Your task to perform on an android device: Go to Google maps Image 0: 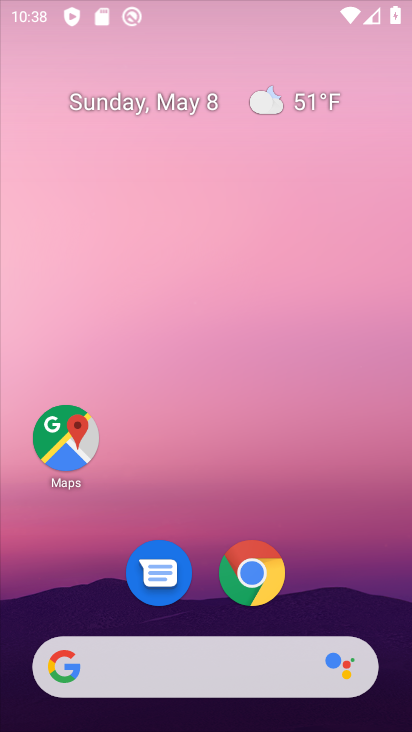
Step 0: drag from (192, 645) to (206, 263)
Your task to perform on an android device: Go to Google maps Image 1: 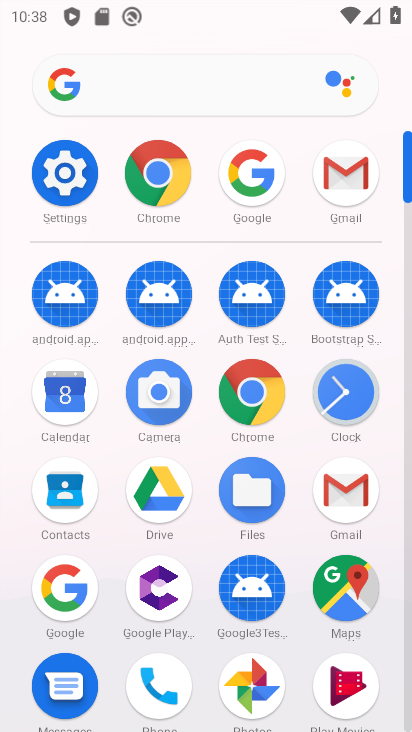
Step 1: click (351, 584)
Your task to perform on an android device: Go to Google maps Image 2: 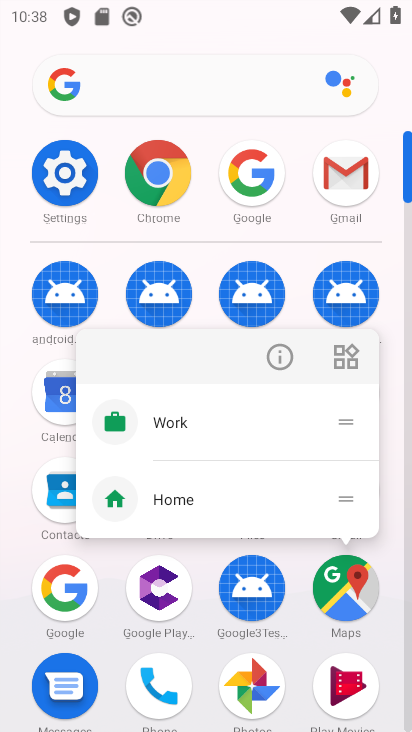
Step 2: click (348, 587)
Your task to perform on an android device: Go to Google maps Image 3: 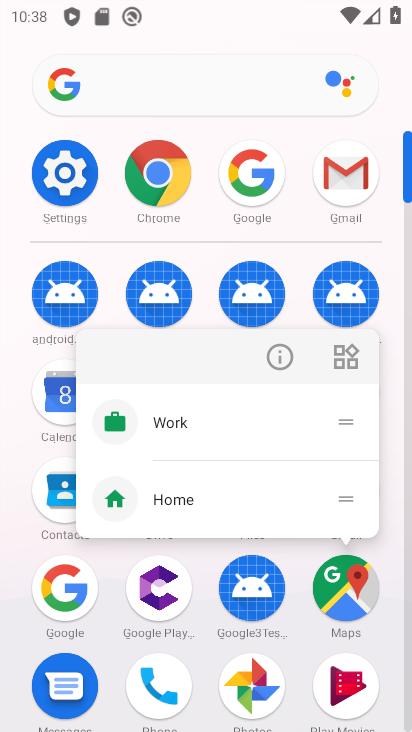
Step 3: click (347, 604)
Your task to perform on an android device: Go to Google maps Image 4: 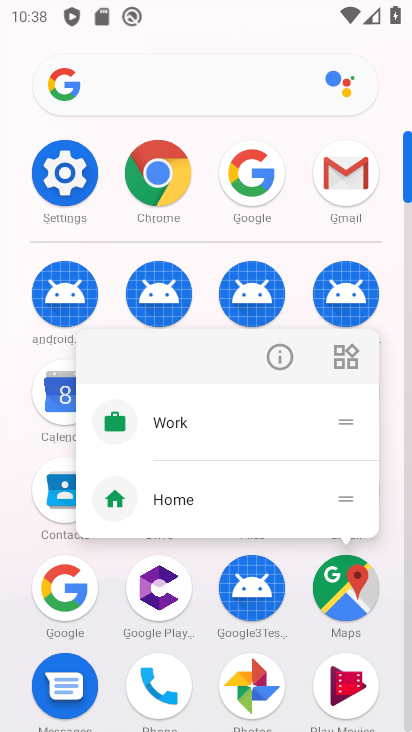
Step 4: click (335, 586)
Your task to perform on an android device: Go to Google maps Image 5: 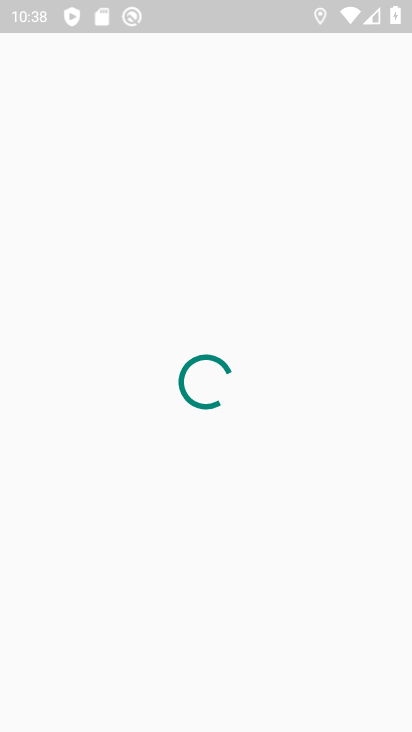
Step 5: drag from (164, 621) to (126, 282)
Your task to perform on an android device: Go to Google maps Image 6: 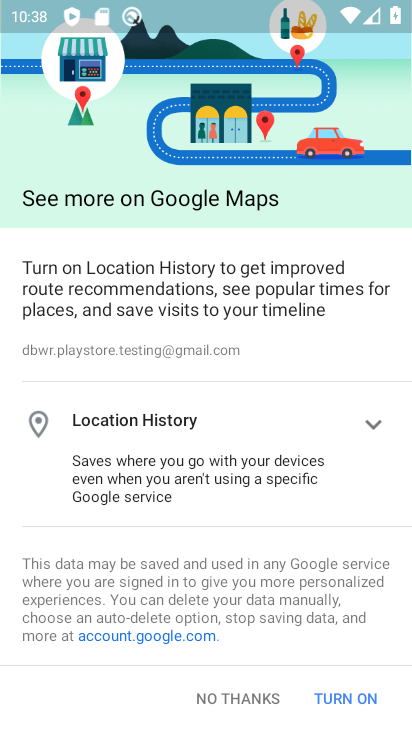
Step 6: click (334, 703)
Your task to perform on an android device: Go to Google maps Image 7: 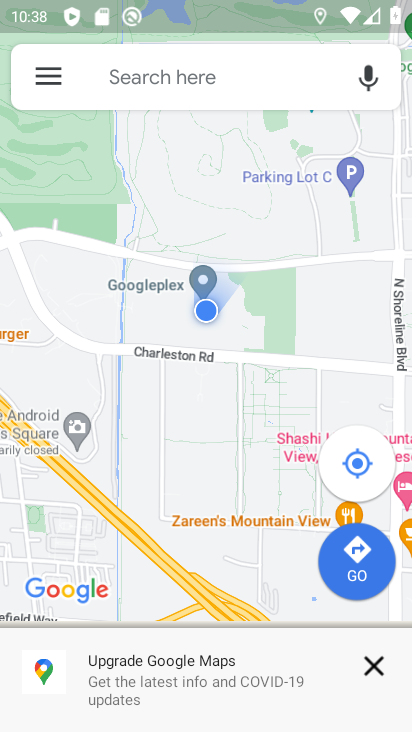
Step 7: task complete